Your task to perform on an android device: turn on the 24-hour format for clock Image 0: 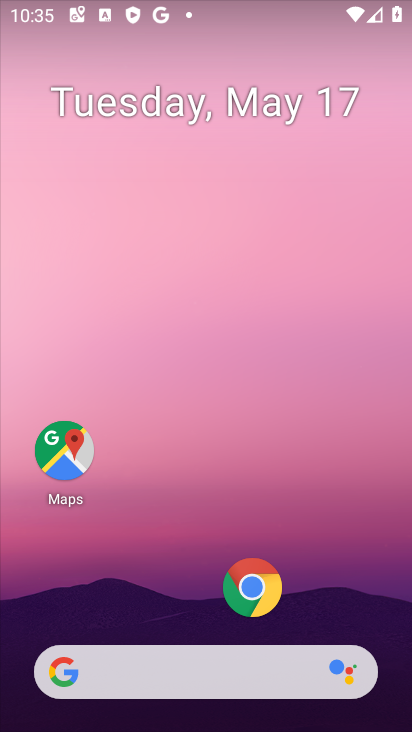
Step 0: drag from (269, 481) to (185, 90)
Your task to perform on an android device: turn on the 24-hour format for clock Image 1: 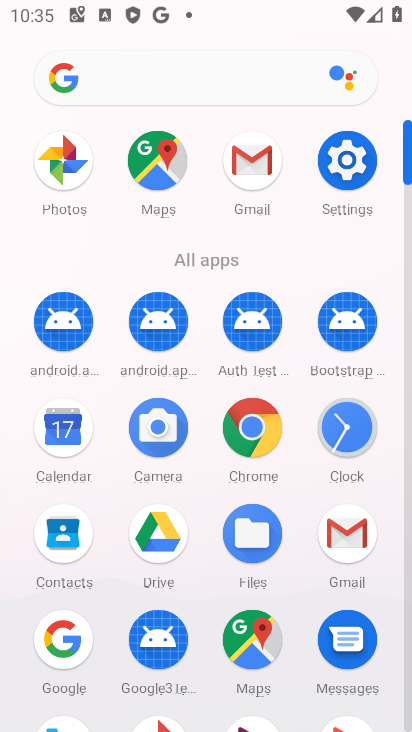
Step 1: click (338, 427)
Your task to perform on an android device: turn on the 24-hour format for clock Image 2: 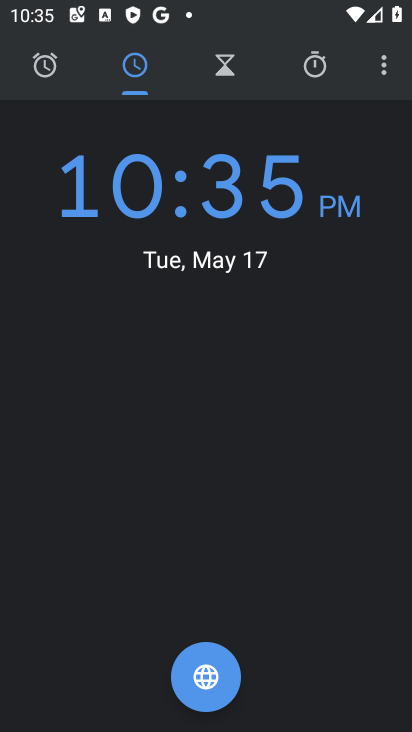
Step 2: click (388, 70)
Your task to perform on an android device: turn on the 24-hour format for clock Image 3: 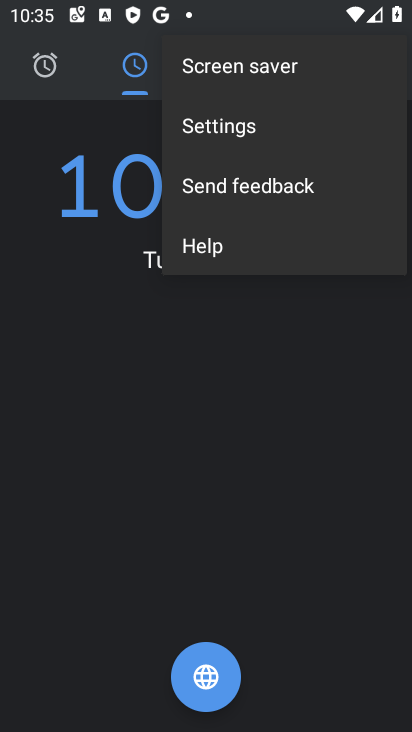
Step 3: click (266, 141)
Your task to perform on an android device: turn on the 24-hour format for clock Image 4: 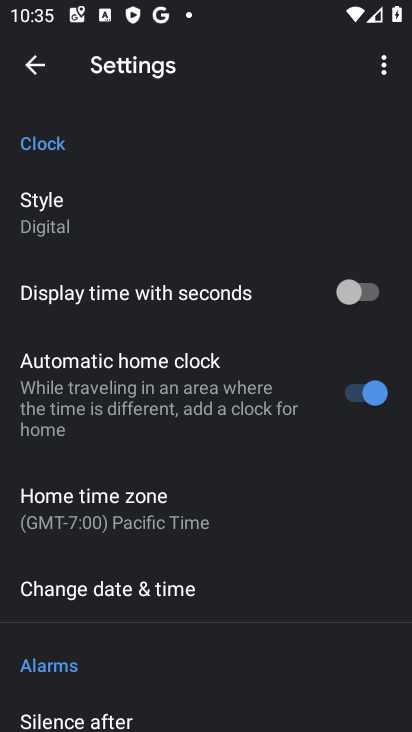
Step 4: click (246, 601)
Your task to perform on an android device: turn on the 24-hour format for clock Image 5: 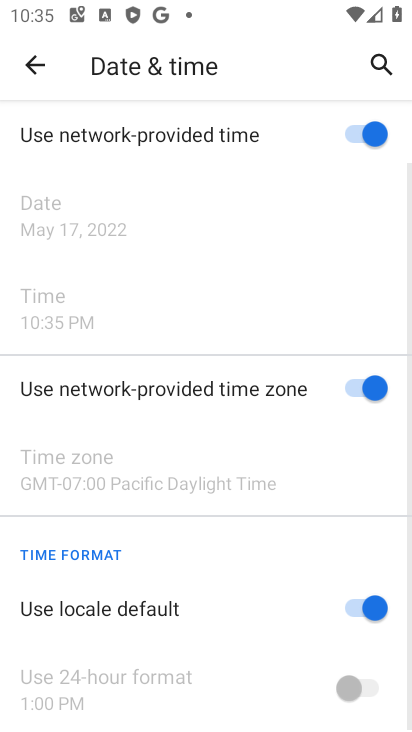
Step 5: drag from (232, 640) to (155, 333)
Your task to perform on an android device: turn on the 24-hour format for clock Image 6: 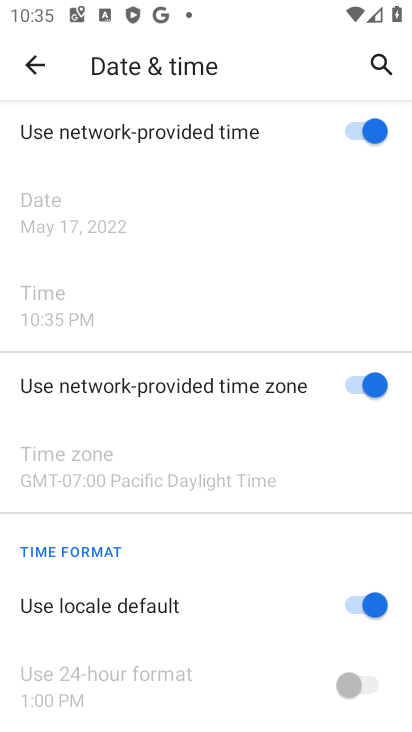
Step 6: click (355, 611)
Your task to perform on an android device: turn on the 24-hour format for clock Image 7: 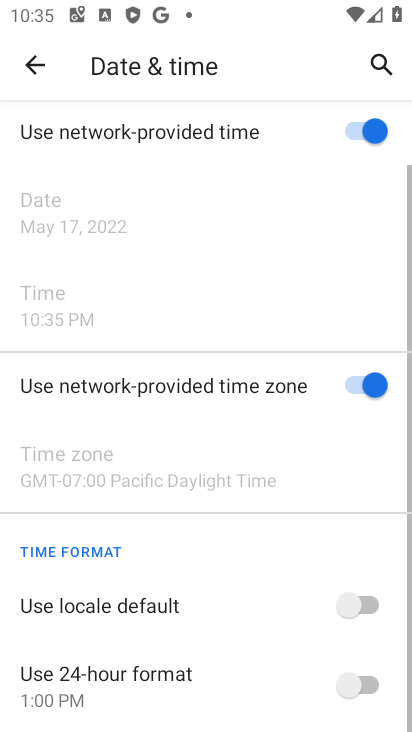
Step 7: click (356, 689)
Your task to perform on an android device: turn on the 24-hour format for clock Image 8: 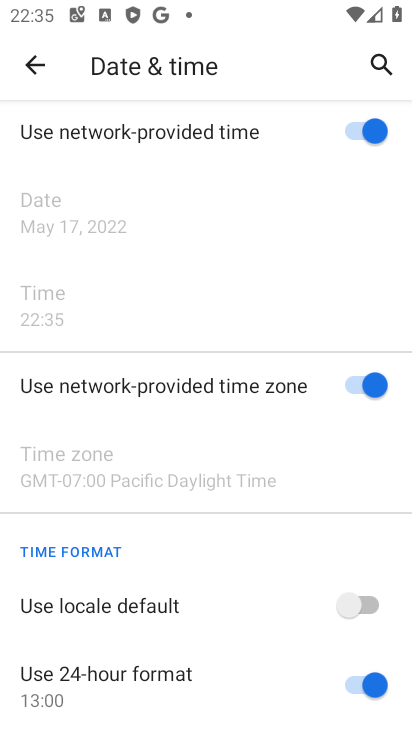
Step 8: task complete